Your task to perform on an android device: turn vacation reply on in the gmail app Image 0: 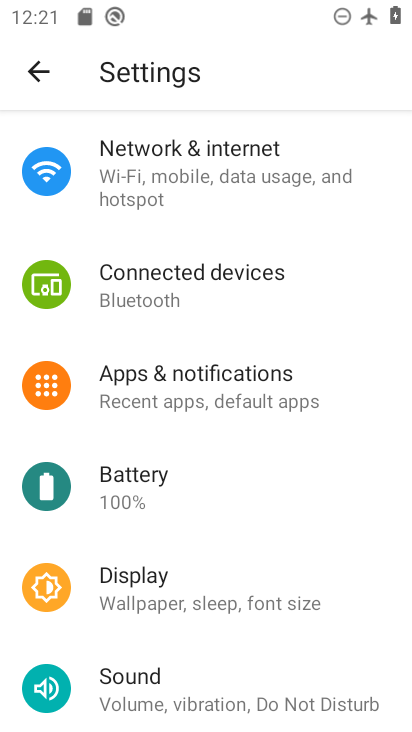
Step 0: press home button
Your task to perform on an android device: turn vacation reply on in the gmail app Image 1: 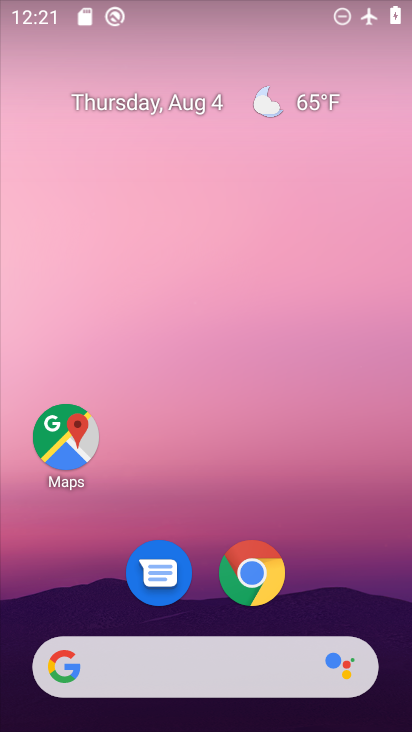
Step 1: drag from (369, 547) to (362, 106)
Your task to perform on an android device: turn vacation reply on in the gmail app Image 2: 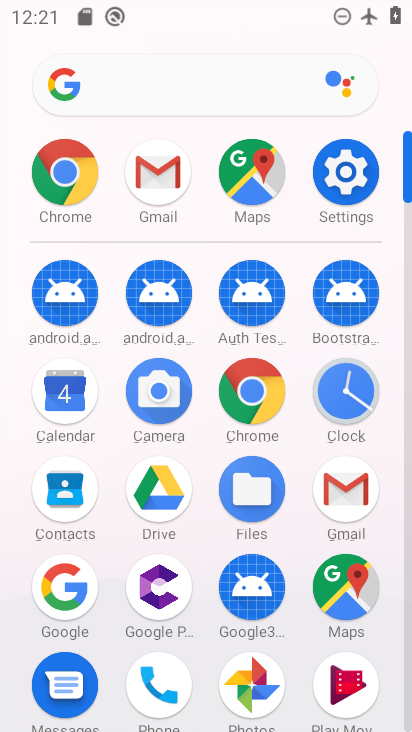
Step 2: click (354, 493)
Your task to perform on an android device: turn vacation reply on in the gmail app Image 3: 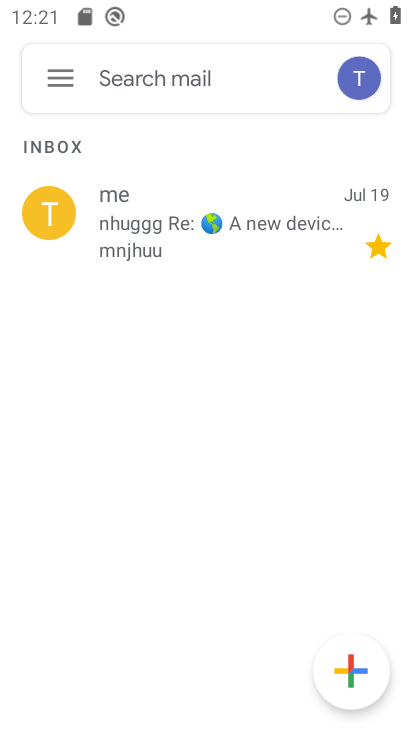
Step 3: click (50, 84)
Your task to perform on an android device: turn vacation reply on in the gmail app Image 4: 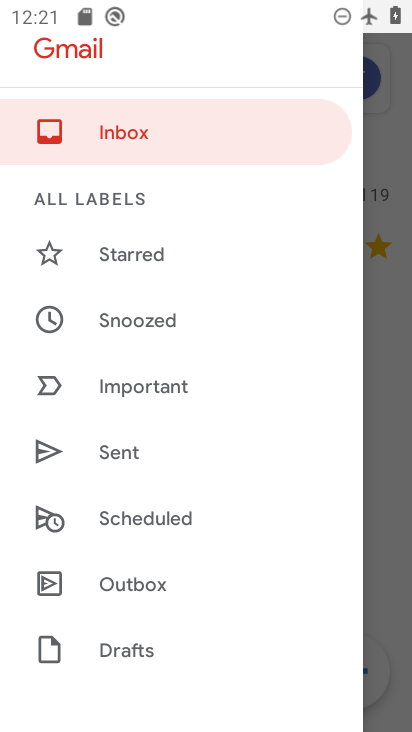
Step 4: drag from (103, 640) to (197, 230)
Your task to perform on an android device: turn vacation reply on in the gmail app Image 5: 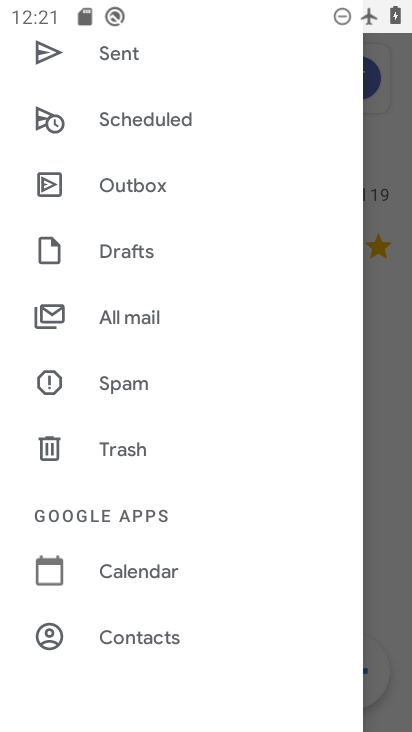
Step 5: drag from (231, 611) to (248, 270)
Your task to perform on an android device: turn vacation reply on in the gmail app Image 6: 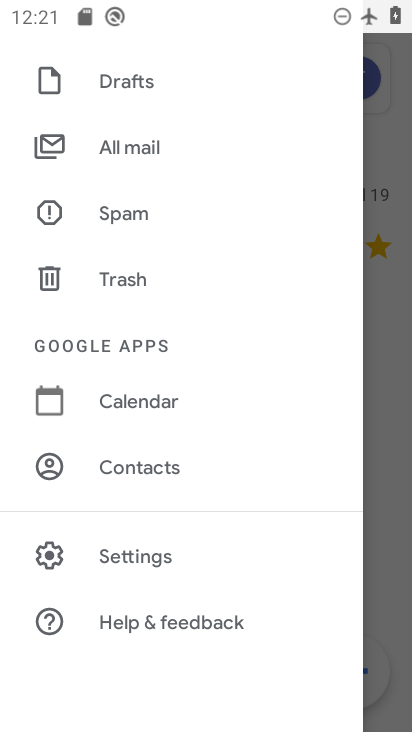
Step 6: click (137, 574)
Your task to perform on an android device: turn vacation reply on in the gmail app Image 7: 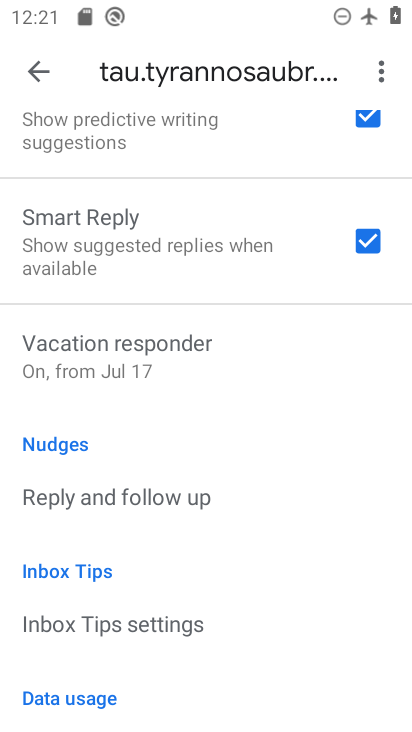
Step 7: click (180, 345)
Your task to perform on an android device: turn vacation reply on in the gmail app Image 8: 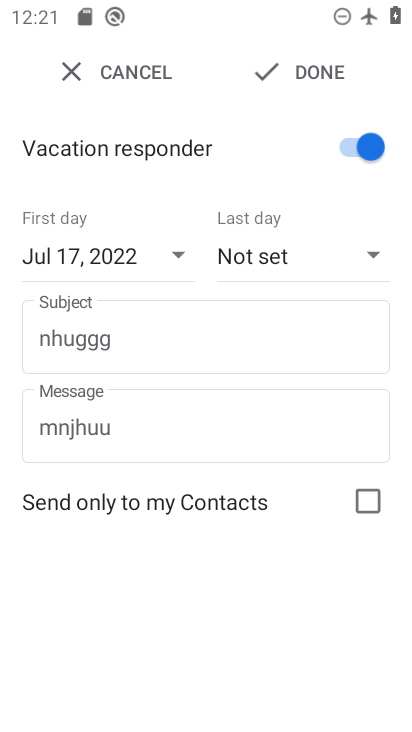
Step 8: task complete